Your task to perform on an android device: turn on wifi Image 0: 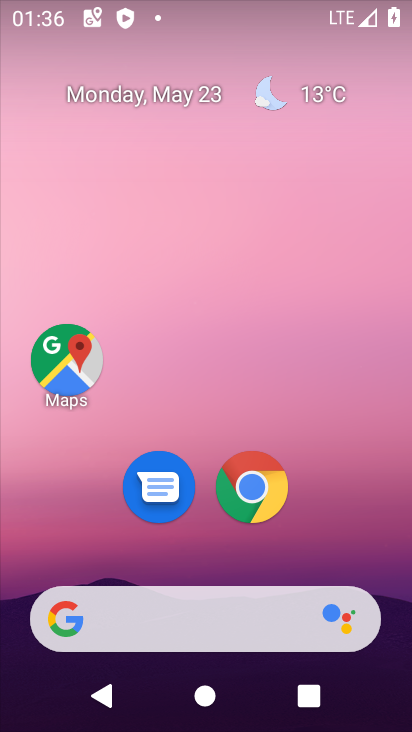
Step 0: drag from (407, 620) to (368, 135)
Your task to perform on an android device: turn on wifi Image 1: 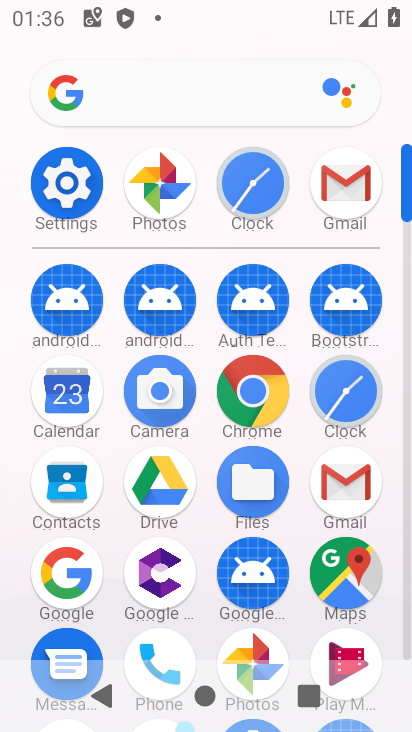
Step 1: click (405, 644)
Your task to perform on an android device: turn on wifi Image 2: 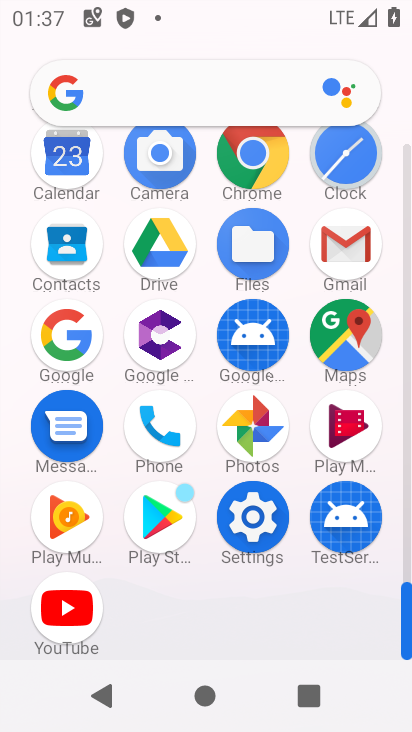
Step 2: click (253, 514)
Your task to perform on an android device: turn on wifi Image 3: 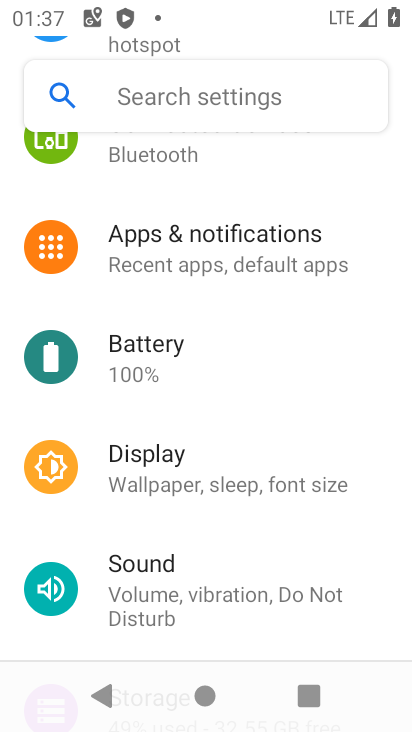
Step 3: drag from (371, 330) to (352, 531)
Your task to perform on an android device: turn on wifi Image 4: 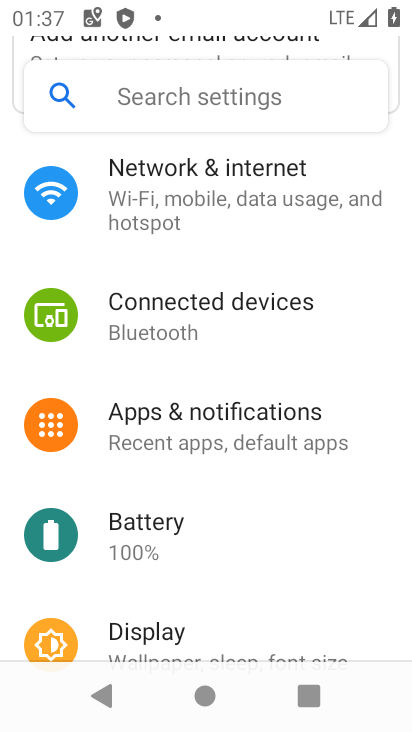
Step 4: click (174, 191)
Your task to perform on an android device: turn on wifi Image 5: 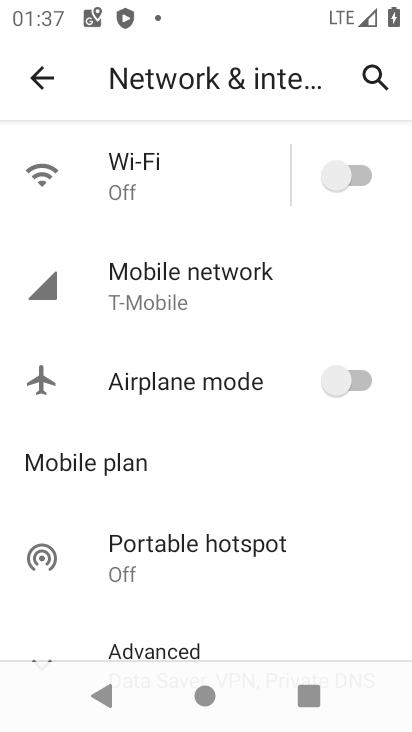
Step 5: click (362, 177)
Your task to perform on an android device: turn on wifi Image 6: 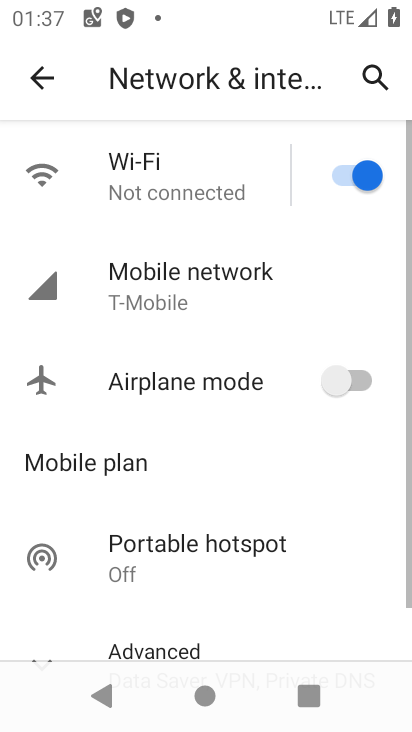
Step 6: task complete